Your task to perform on an android device: turn on improve location accuracy Image 0: 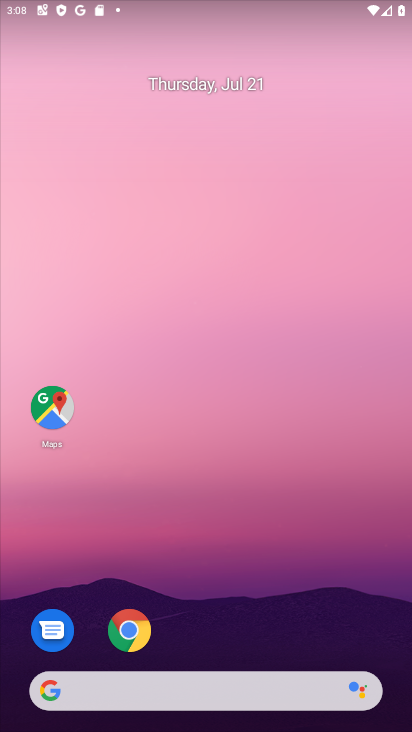
Step 0: drag from (260, 505) to (65, 0)
Your task to perform on an android device: turn on improve location accuracy Image 1: 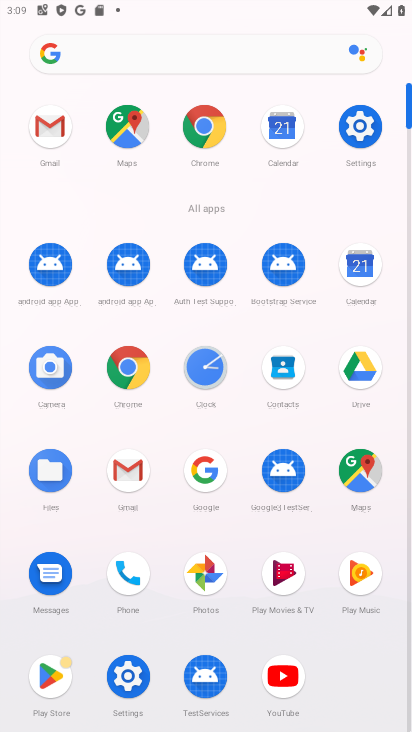
Step 1: click (362, 122)
Your task to perform on an android device: turn on improve location accuracy Image 2: 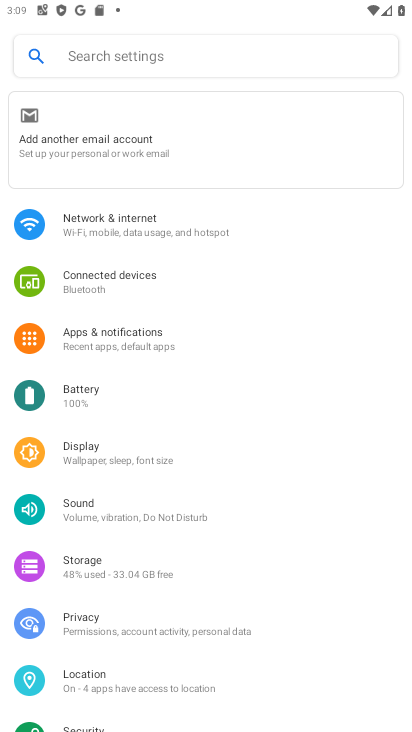
Step 2: drag from (132, 534) to (43, 215)
Your task to perform on an android device: turn on improve location accuracy Image 3: 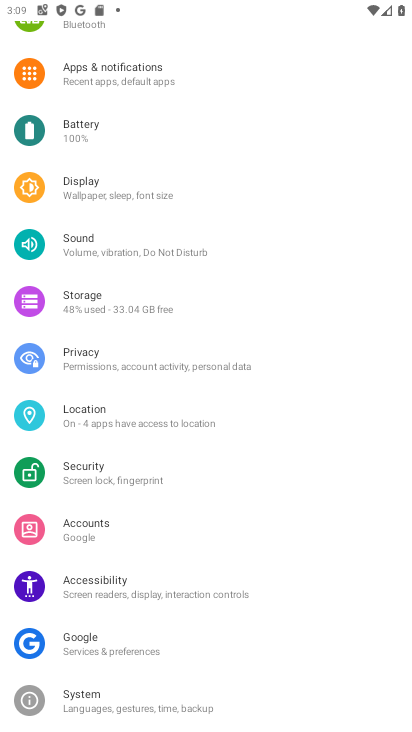
Step 3: click (97, 412)
Your task to perform on an android device: turn on improve location accuracy Image 4: 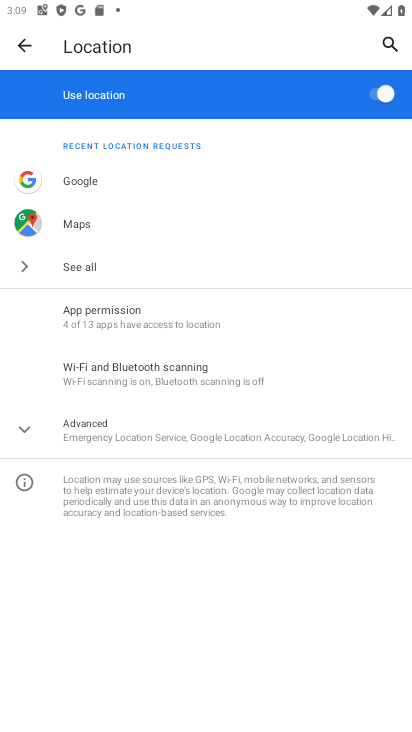
Step 4: click (140, 431)
Your task to perform on an android device: turn on improve location accuracy Image 5: 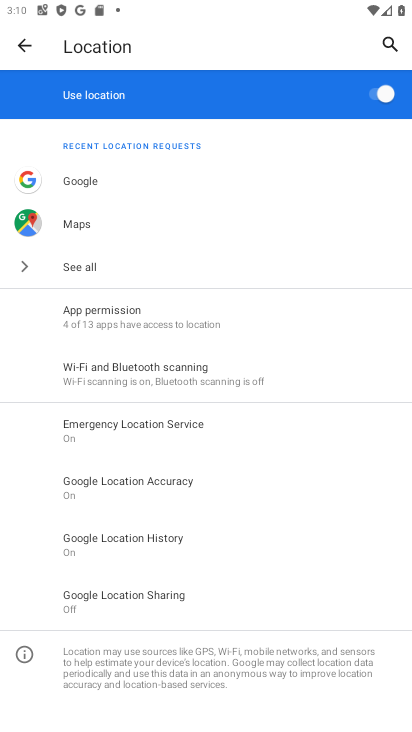
Step 5: click (126, 479)
Your task to perform on an android device: turn on improve location accuracy Image 6: 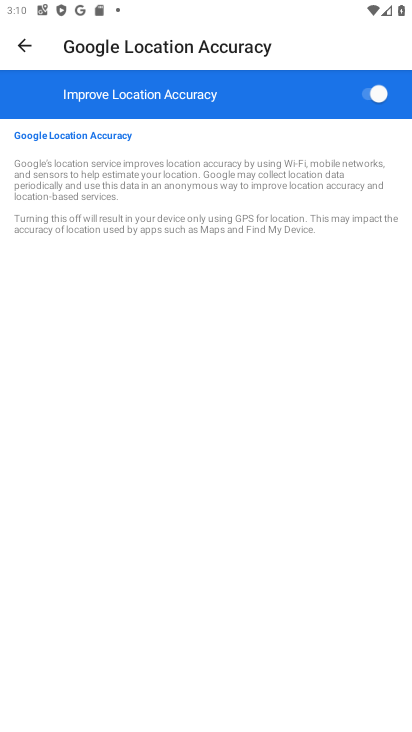
Step 6: task complete